Your task to perform on an android device: toggle translation in the chrome app Image 0: 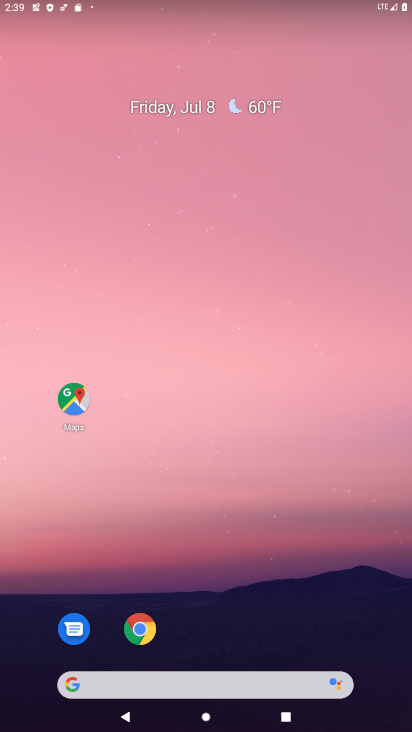
Step 0: click (158, 636)
Your task to perform on an android device: toggle translation in the chrome app Image 1: 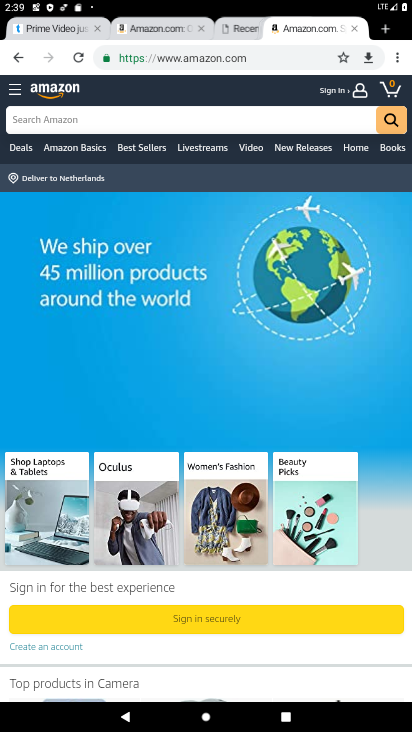
Step 1: click (397, 54)
Your task to perform on an android device: toggle translation in the chrome app Image 2: 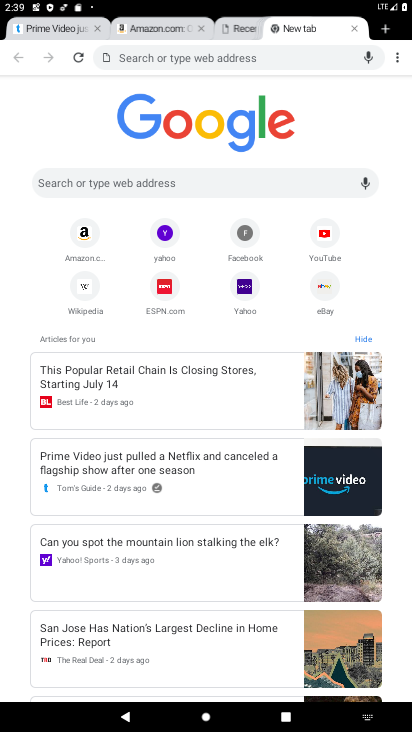
Step 2: click (396, 60)
Your task to perform on an android device: toggle translation in the chrome app Image 3: 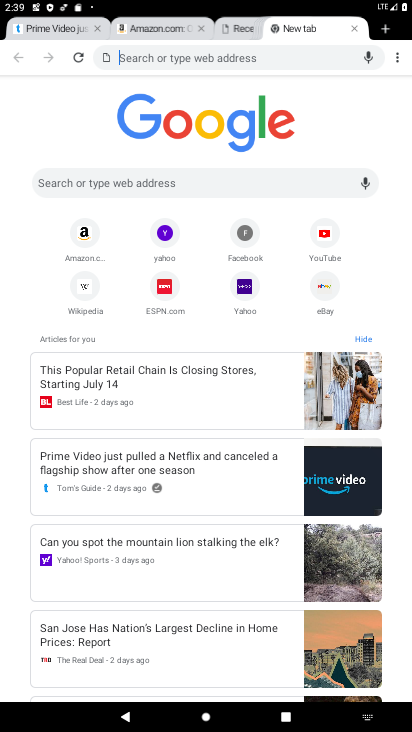
Step 3: drag from (396, 60) to (282, 259)
Your task to perform on an android device: toggle translation in the chrome app Image 4: 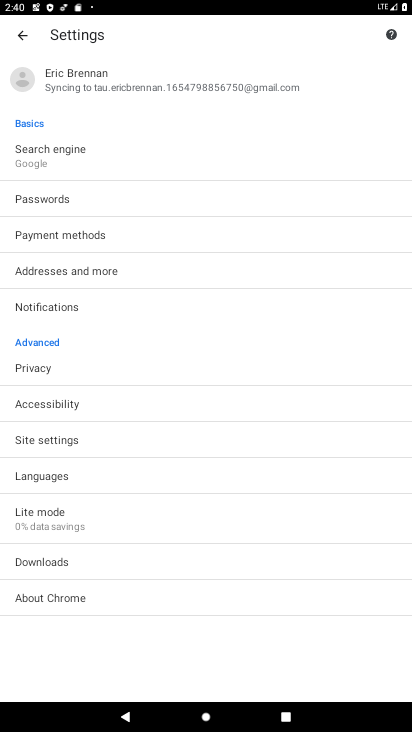
Step 4: click (72, 472)
Your task to perform on an android device: toggle translation in the chrome app Image 5: 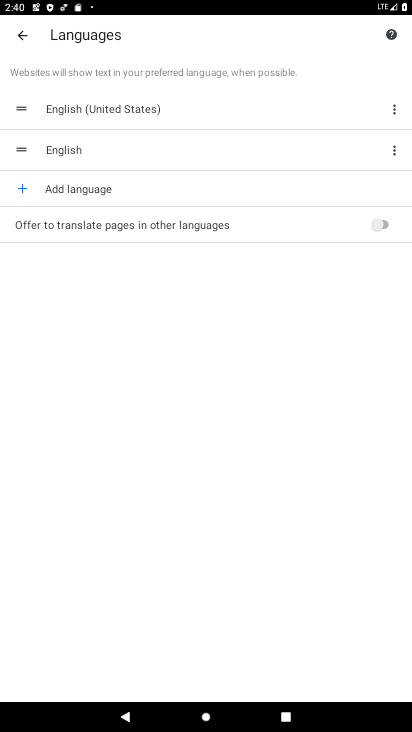
Step 5: click (385, 219)
Your task to perform on an android device: toggle translation in the chrome app Image 6: 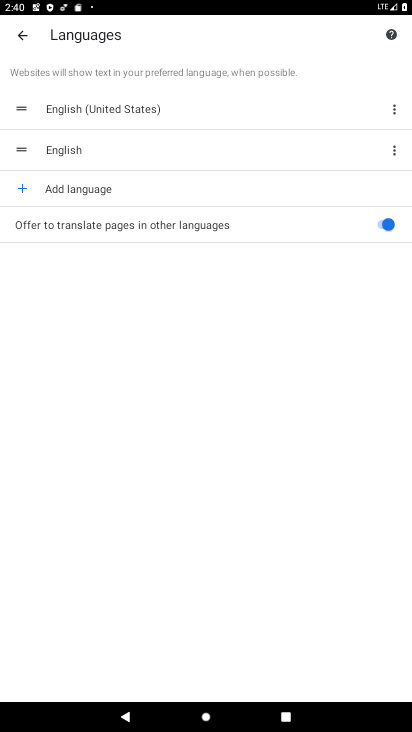
Step 6: task complete